Your task to perform on an android device: change the clock display to digital Image 0: 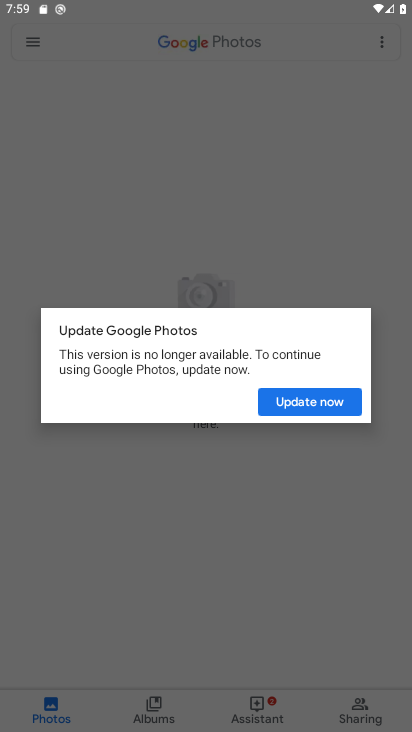
Step 0: press home button
Your task to perform on an android device: change the clock display to digital Image 1: 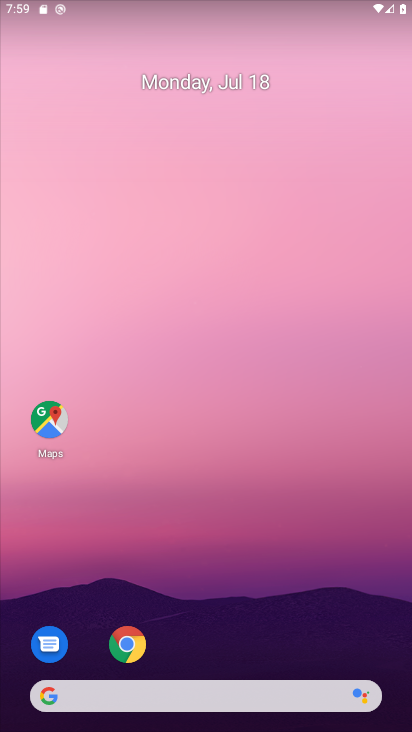
Step 1: drag from (222, 610) to (210, 134)
Your task to perform on an android device: change the clock display to digital Image 2: 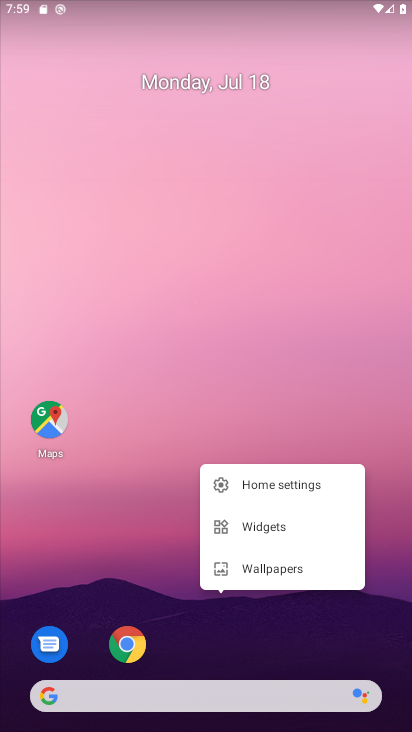
Step 2: click (206, 296)
Your task to perform on an android device: change the clock display to digital Image 3: 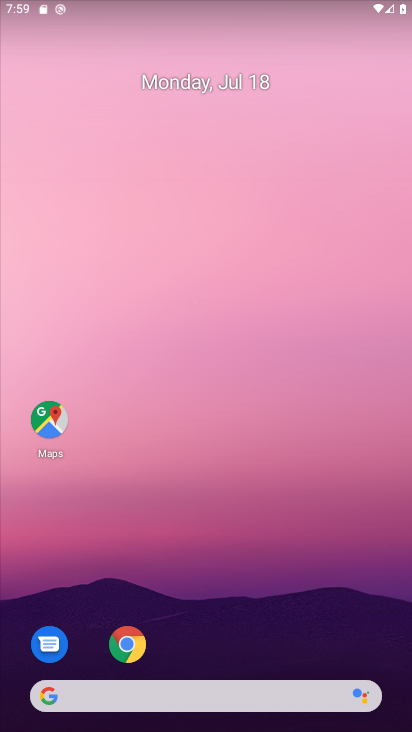
Step 3: drag from (222, 637) to (212, 71)
Your task to perform on an android device: change the clock display to digital Image 4: 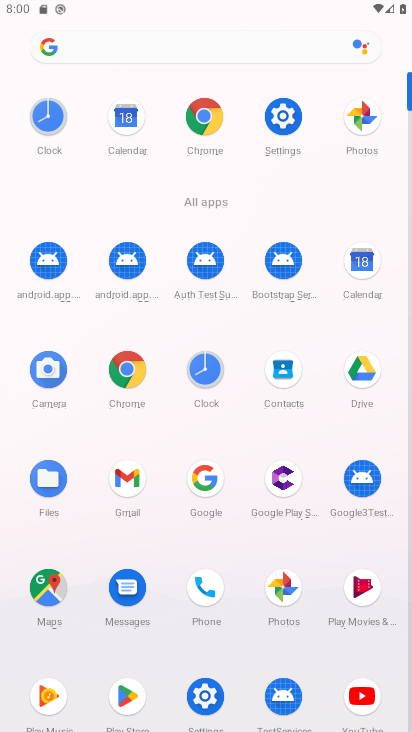
Step 4: click (63, 126)
Your task to perform on an android device: change the clock display to digital Image 5: 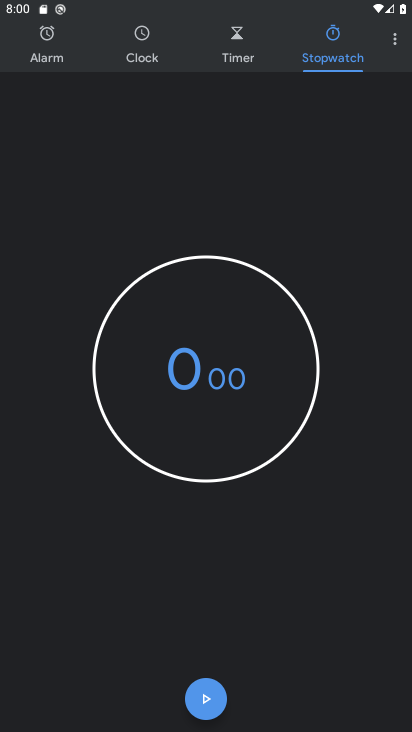
Step 5: click (396, 48)
Your task to perform on an android device: change the clock display to digital Image 6: 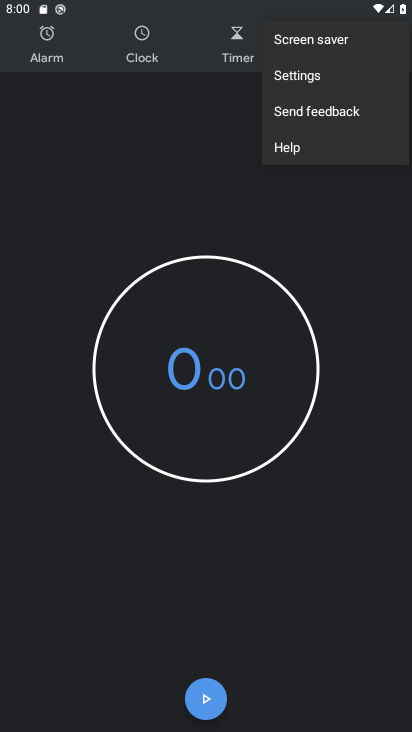
Step 6: click (338, 83)
Your task to perform on an android device: change the clock display to digital Image 7: 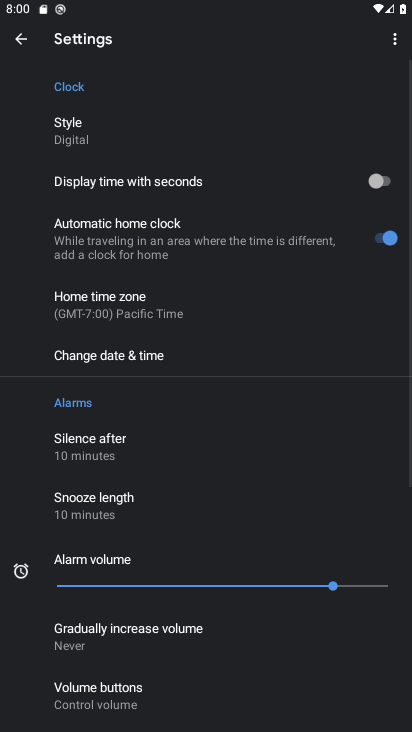
Step 7: click (119, 134)
Your task to perform on an android device: change the clock display to digital Image 8: 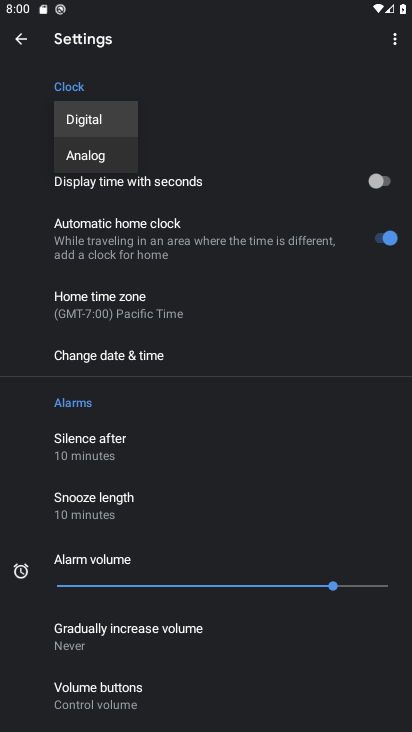
Step 8: click (107, 131)
Your task to perform on an android device: change the clock display to digital Image 9: 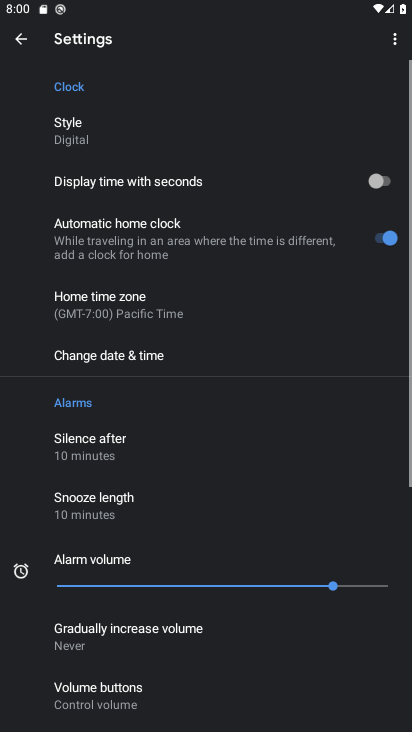
Step 9: task complete